Your task to perform on an android device: refresh tabs in the chrome app Image 0: 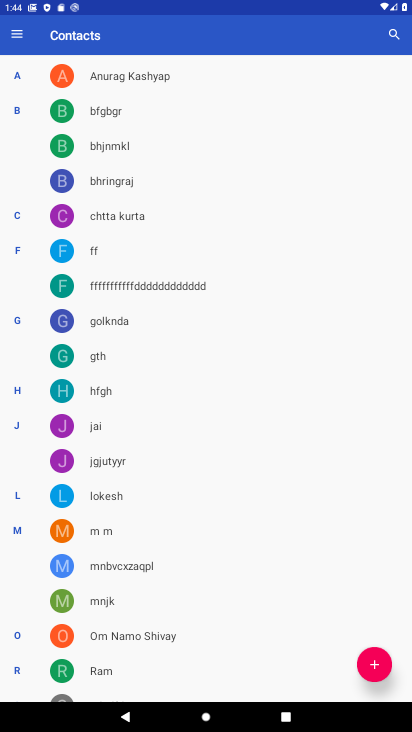
Step 0: press home button
Your task to perform on an android device: refresh tabs in the chrome app Image 1: 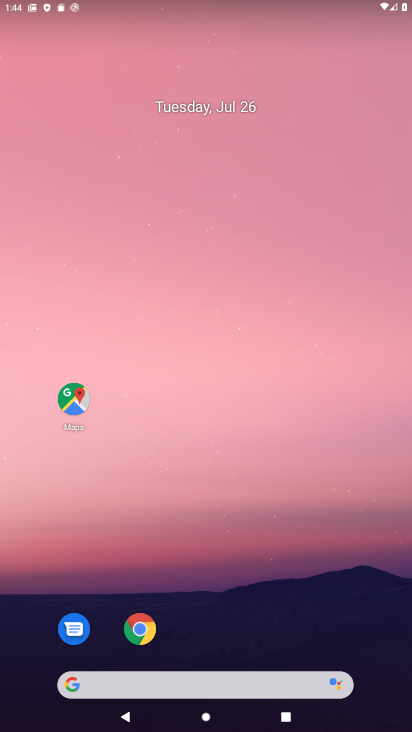
Step 1: click (141, 630)
Your task to perform on an android device: refresh tabs in the chrome app Image 2: 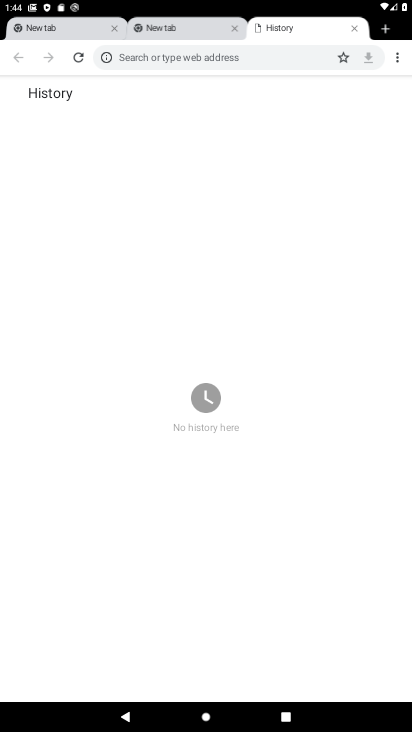
Step 2: click (398, 64)
Your task to perform on an android device: refresh tabs in the chrome app Image 3: 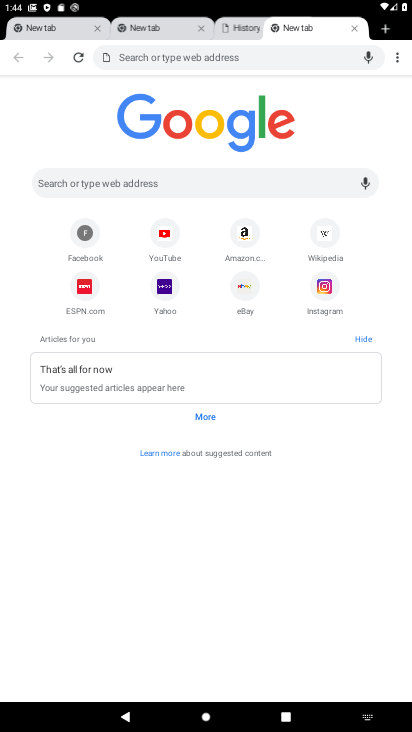
Step 3: click (397, 55)
Your task to perform on an android device: refresh tabs in the chrome app Image 4: 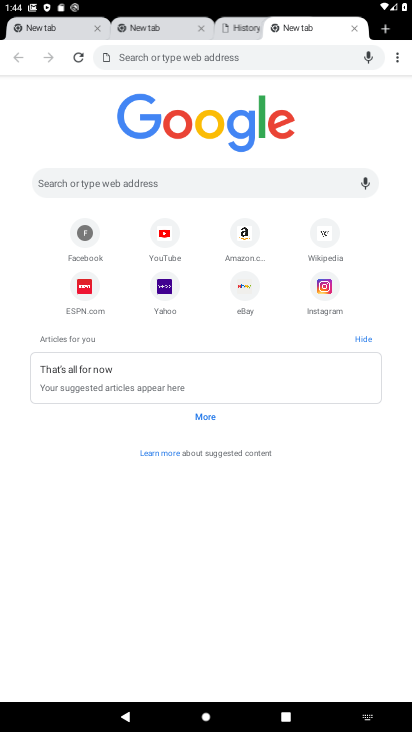
Step 4: click (397, 55)
Your task to perform on an android device: refresh tabs in the chrome app Image 5: 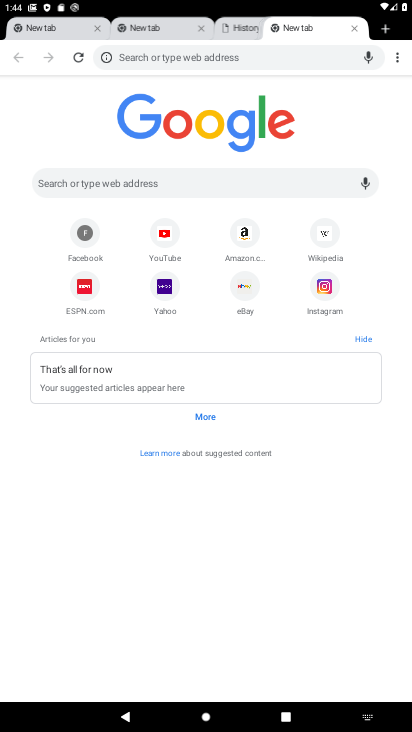
Step 5: click (393, 56)
Your task to perform on an android device: refresh tabs in the chrome app Image 6: 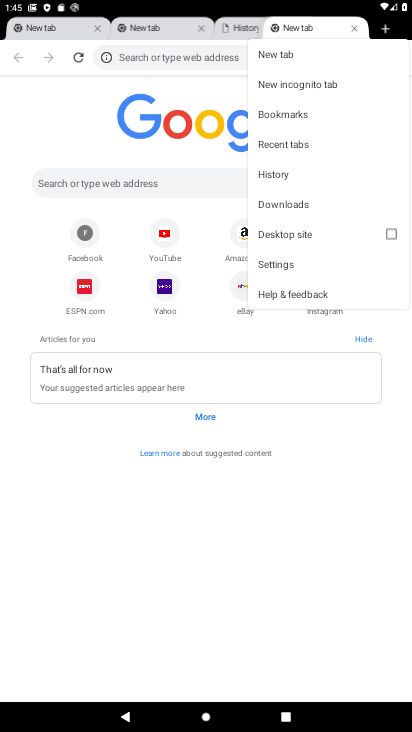
Step 6: click (274, 57)
Your task to perform on an android device: refresh tabs in the chrome app Image 7: 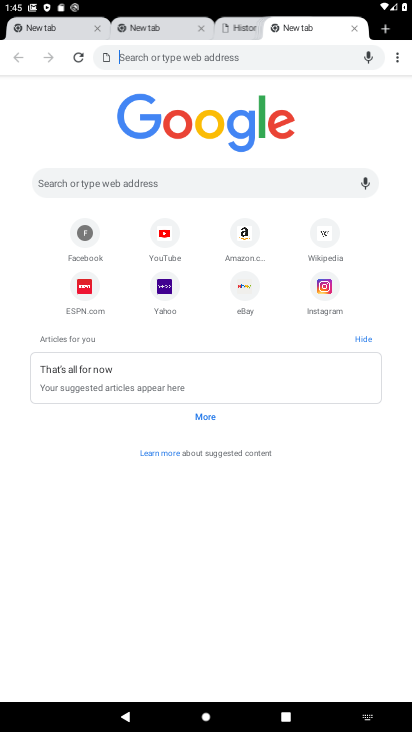
Step 7: task complete